Your task to perform on an android device: Go to location settings Image 0: 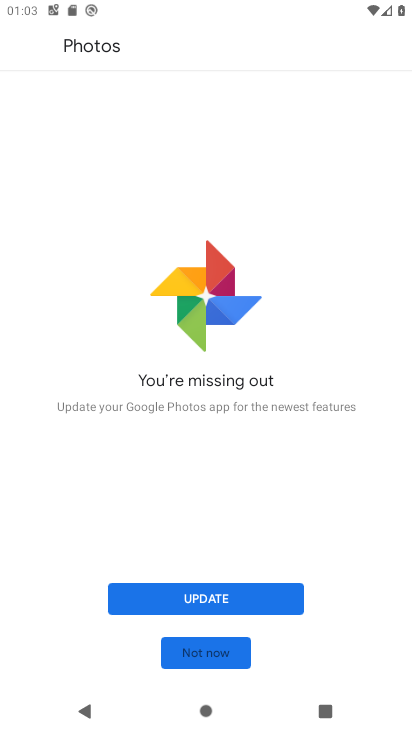
Step 0: press home button
Your task to perform on an android device: Go to location settings Image 1: 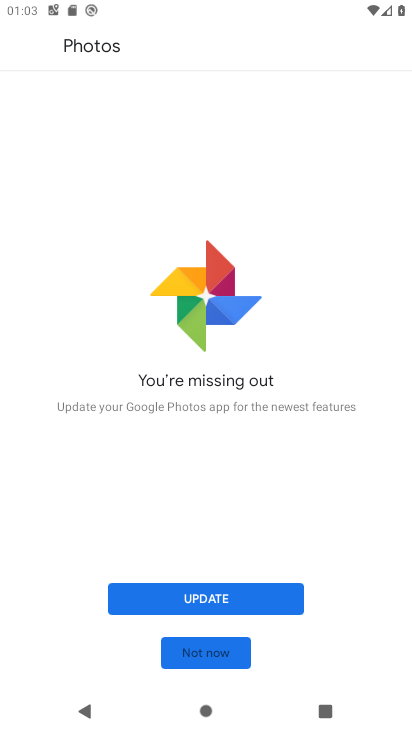
Step 1: press home button
Your task to perform on an android device: Go to location settings Image 2: 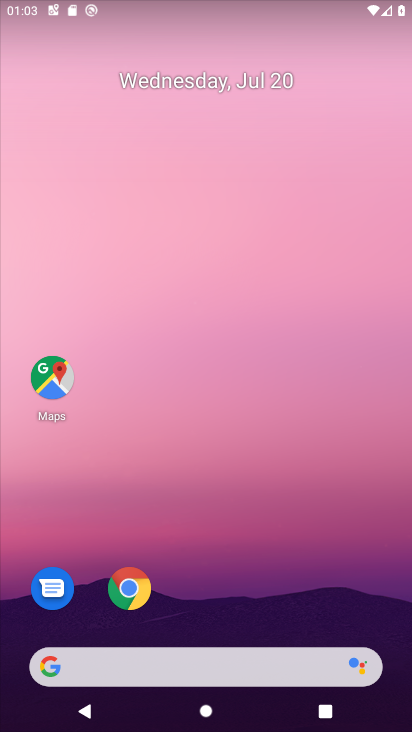
Step 2: drag from (243, 588) to (222, 197)
Your task to perform on an android device: Go to location settings Image 3: 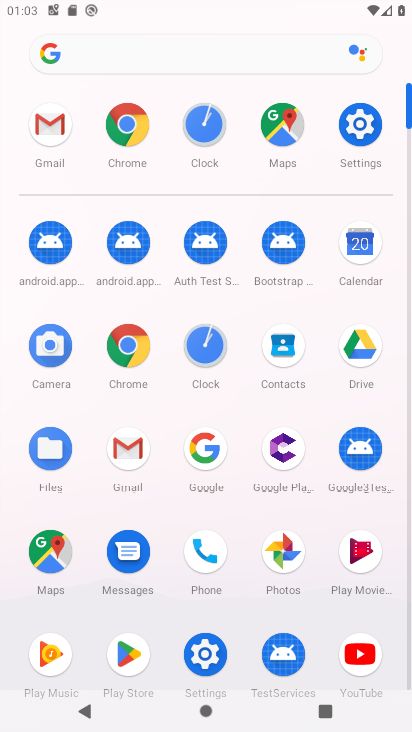
Step 3: click (366, 113)
Your task to perform on an android device: Go to location settings Image 4: 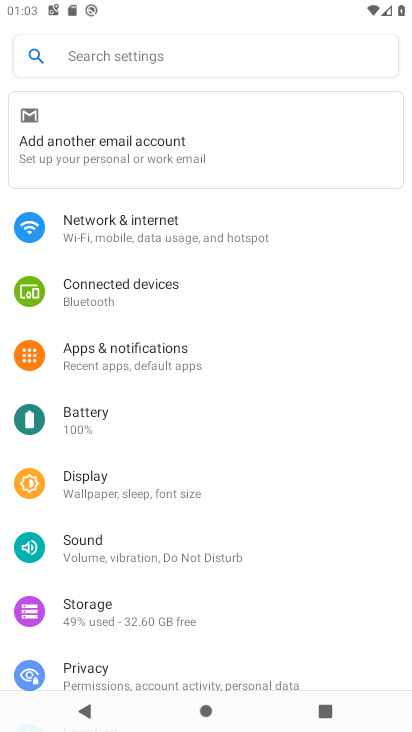
Step 4: drag from (141, 577) to (192, 241)
Your task to perform on an android device: Go to location settings Image 5: 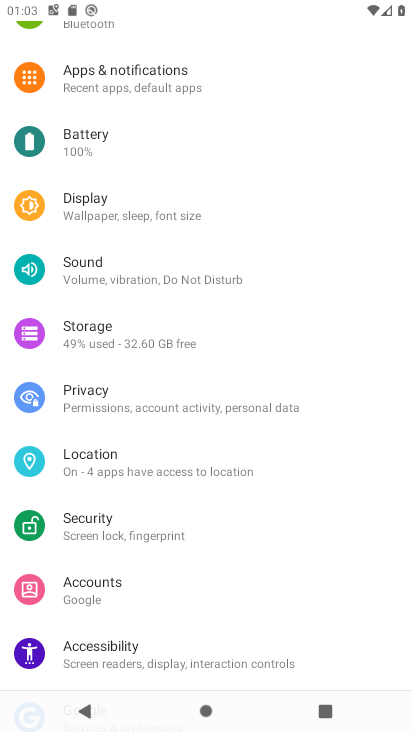
Step 5: click (127, 465)
Your task to perform on an android device: Go to location settings Image 6: 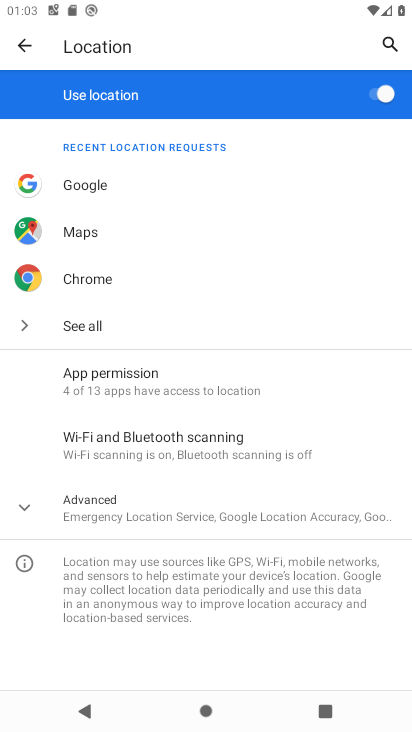
Step 6: task complete